Your task to perform on an android device: turn on location history Image 0: 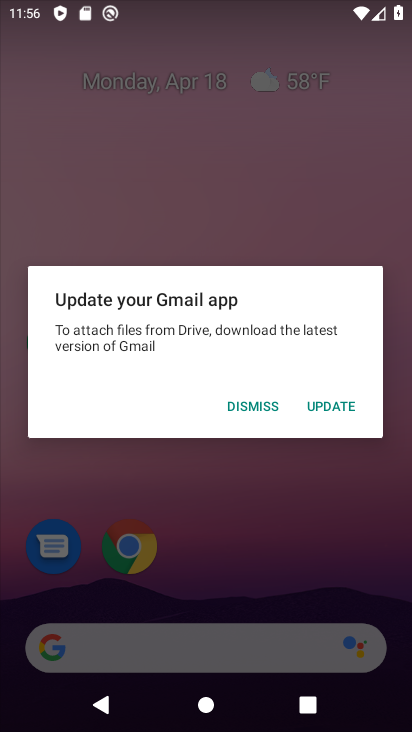
Step 0: press home button
Your task to perform on an android device: turn on location history Image 1: 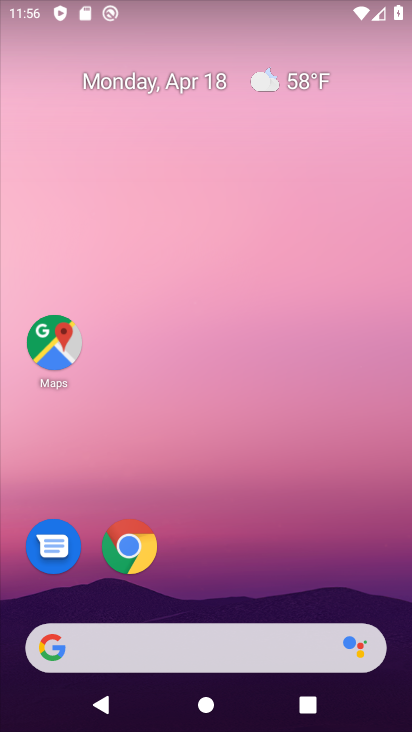
Step 1: drag from (221, 547) to (235, 66)
Your task to perform on an android device: turn on location history Image 2: 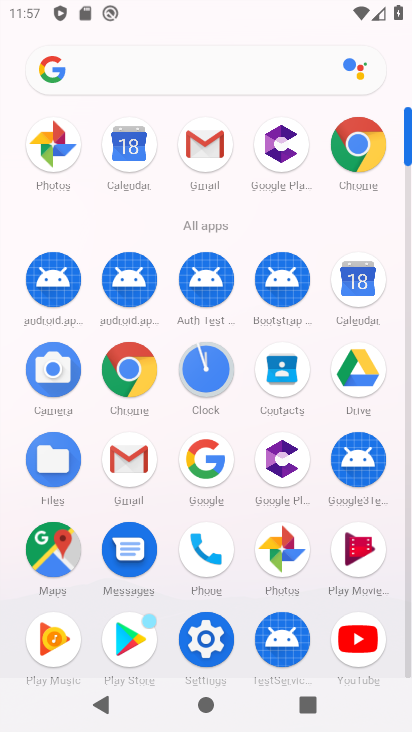
Step 2: click (209, 640)
Your task to perform on an android device: turn on location history Image 3: 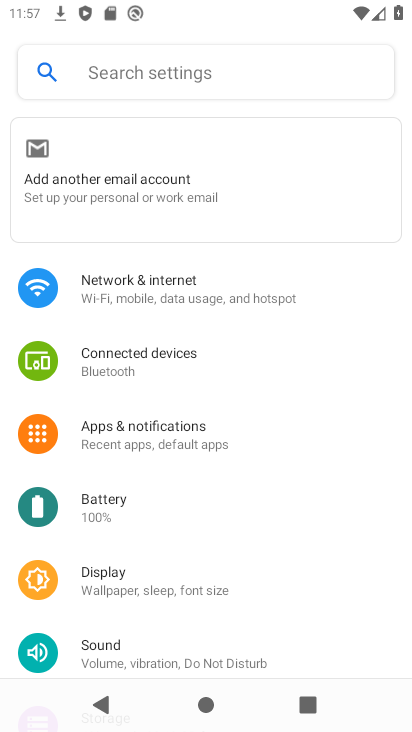
Step 3: drag from (183, 579) to (223, 342)
Your task to perform on an android device: turn on location history Image 4: 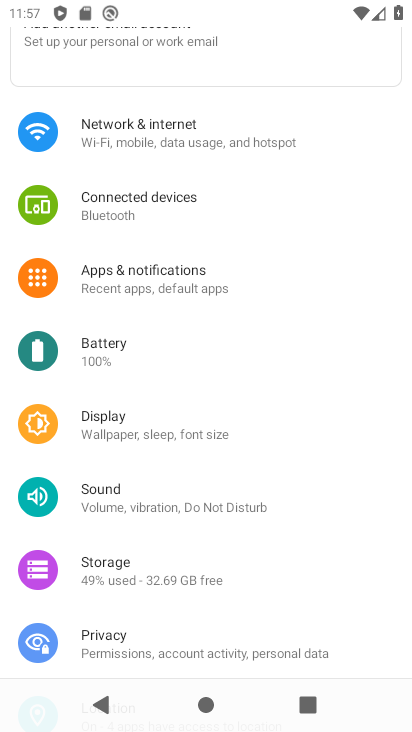
Step 4: drag from (170, 468) to (225, 217)
Your task to perform on an android device: turn on location history Image 5: 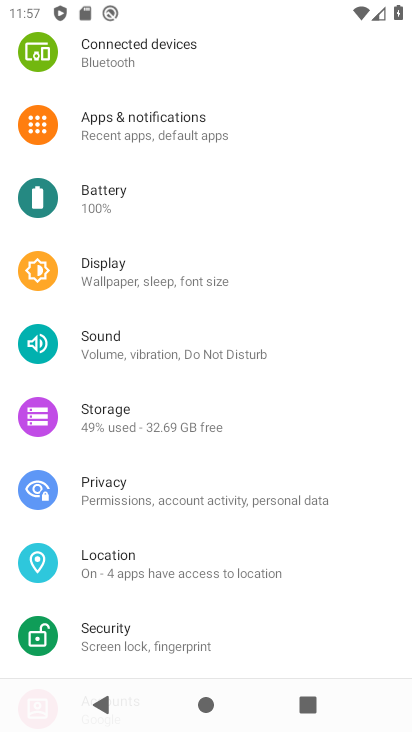
Step 5: click (190, 572)
Your task to perform on an android device: turn on location history Image 6: 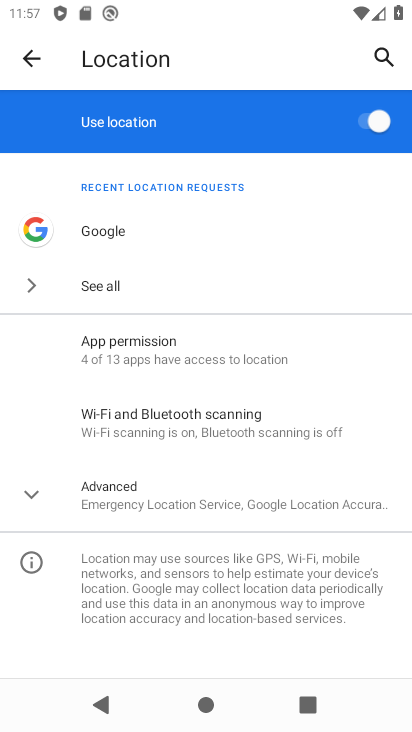
Step 6: click (26, 495)
Your task to perform on an android device: turn on location history Image 7: 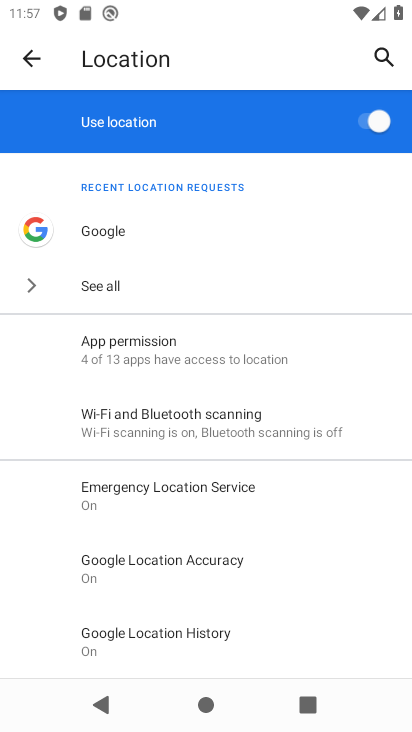
Step 7: click (152, 628)
Your task to perform on an android device: turn on location history Image 8: 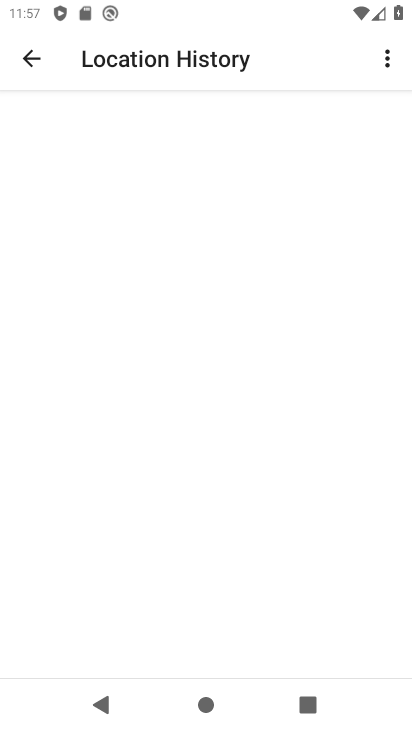
Step 8: task complete